Your task to perform on an android device: Open my contact list Image 0: 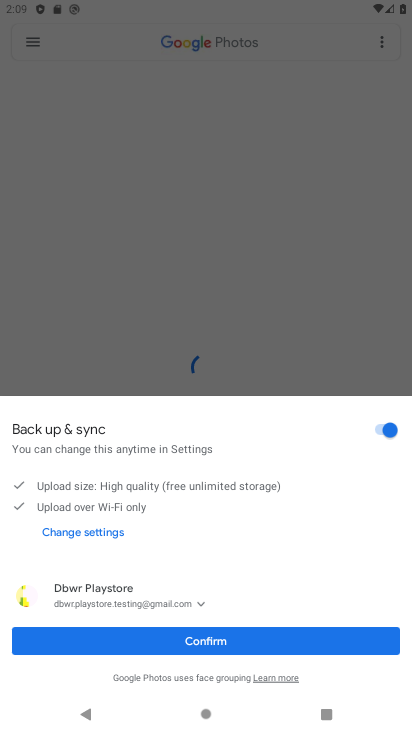
Step 0: press back button
Your task to perform on an android device: Open my contact list Image 1: 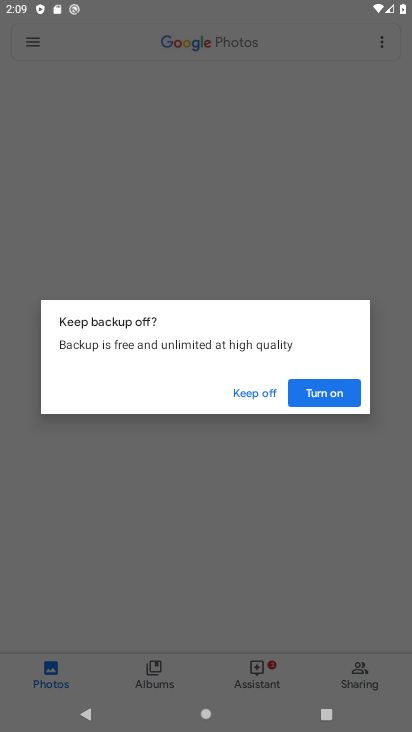
Step 1: press back button
Your task to perform on an android device: Open my contact list Image 2: 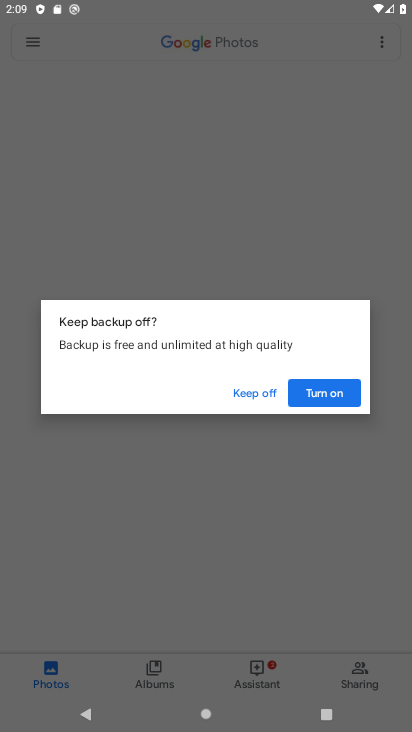
Step 2: press back button
Your task to perform on an android device: Open my contact list Image 3: 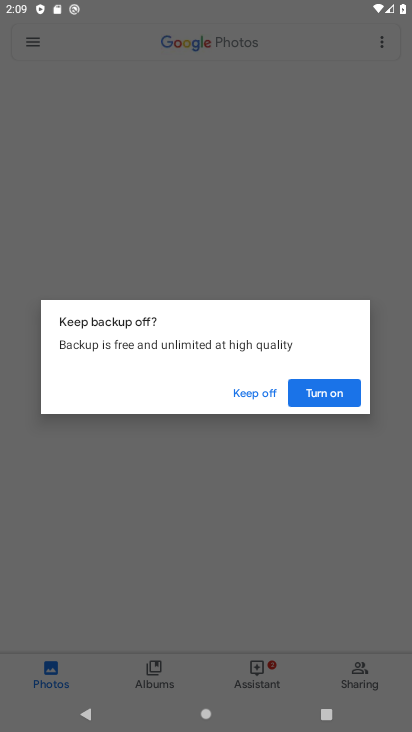
Step 3: press back button
Your task to perform on an android device: Open my contact list Image 4: 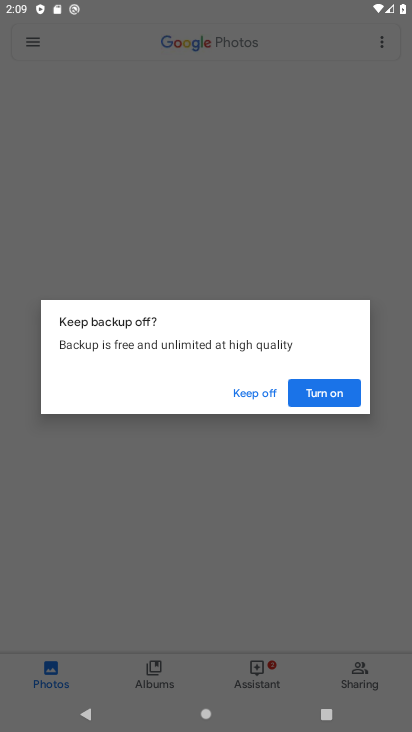
Step 4: click (244, 394)
Your task to perform on an android device: Open my contact list Image 5: 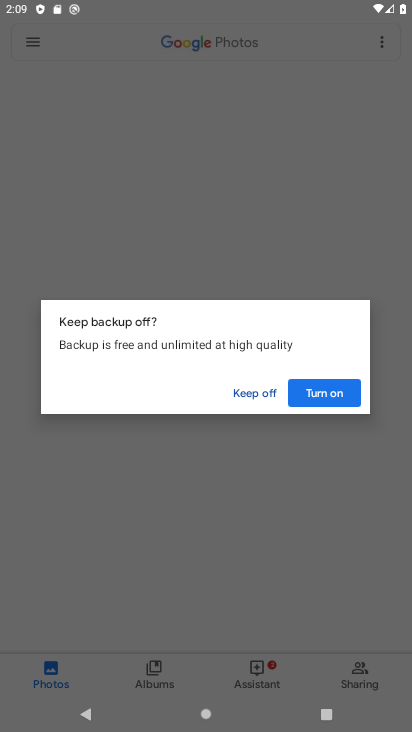
Step 5: click (244, 394)
Your task to perform on an android device: Open my contact list Image 6: 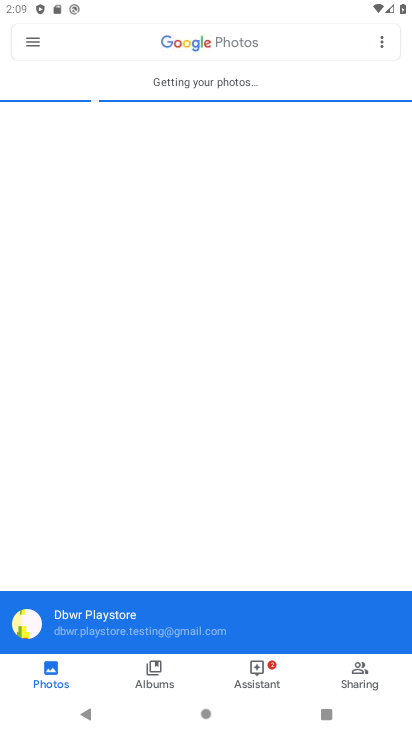
Step 6: click (247, 394)
Your task to perform on an android device: Open my contact list Image 7: 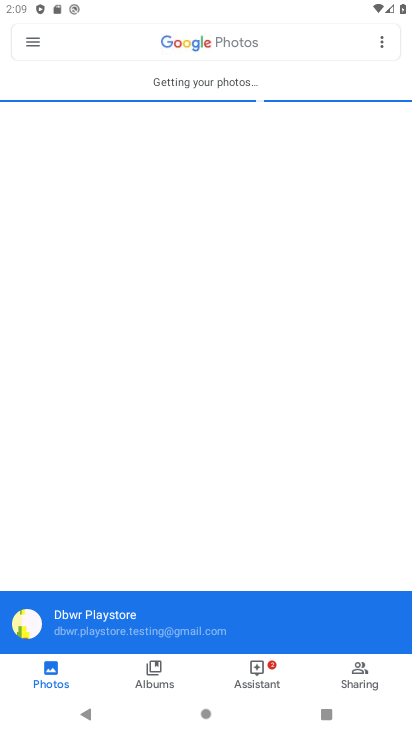
Step 7: click (248, 393)
Your task to perform on an android device: Open my contact list Image 8: 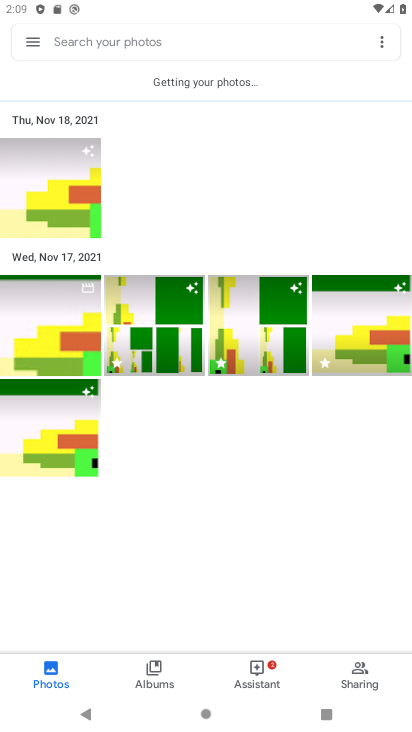
Step 8: press back button
Your task to perform on an android device: Open my contact list Image 9: 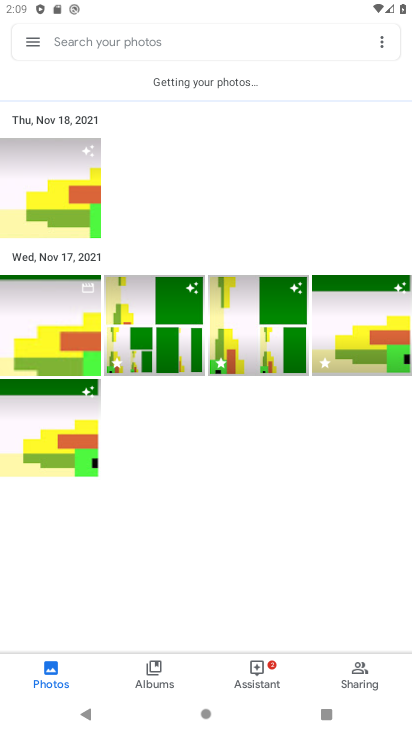
Step 9: press back button
Your task to perform on an android device: Open my contact list Image 10: 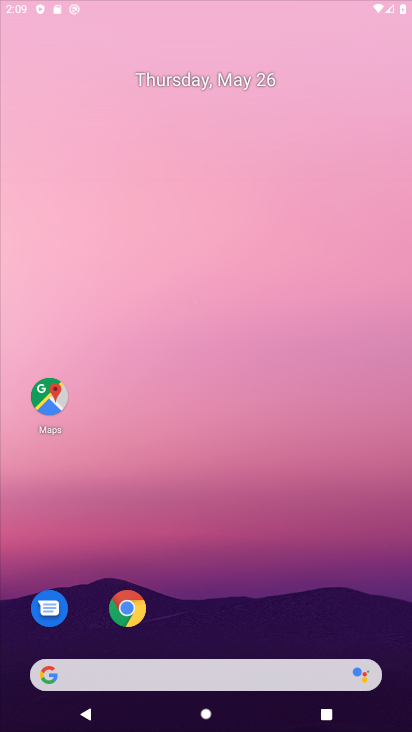
Step 10: press back button
Your task to perform on an android device: Open my contact list Image 11: 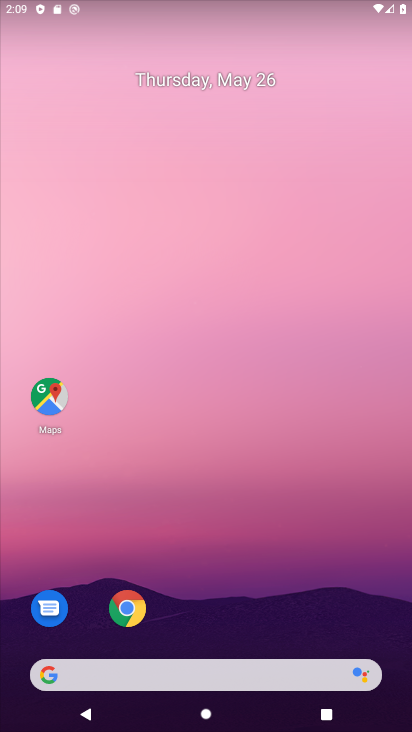
Step 11: press back button
Your task to perform on an android device: Open my contact list Image 12: 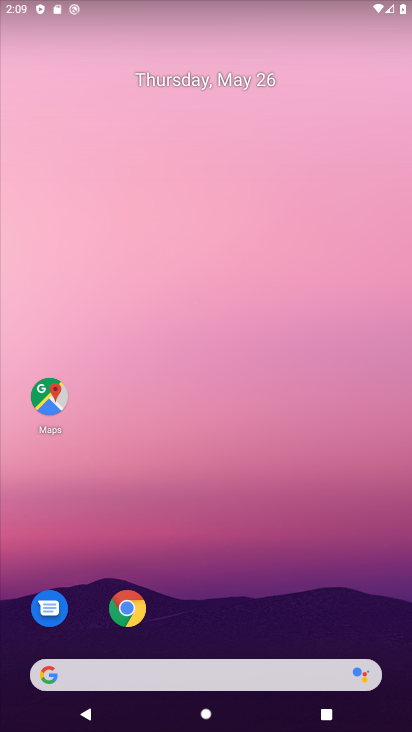
Step 12: drag from (252, 641) to (188, 0)
Your task to perform on an android device: Open my contact list Image 13: 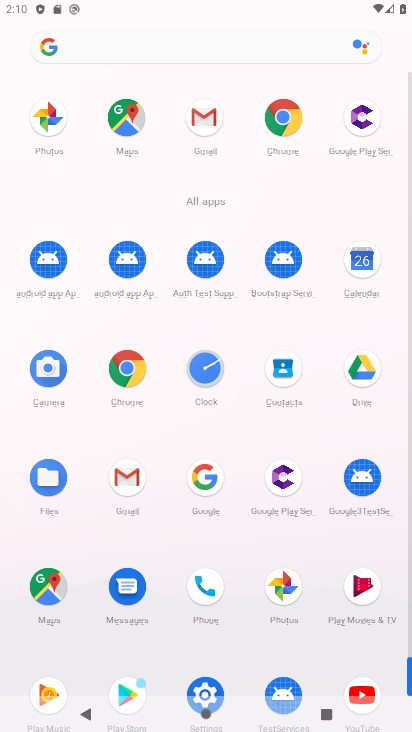
Step 13: click (284, 371)
Your task to perform on an android device: Open my contact list Image 14: 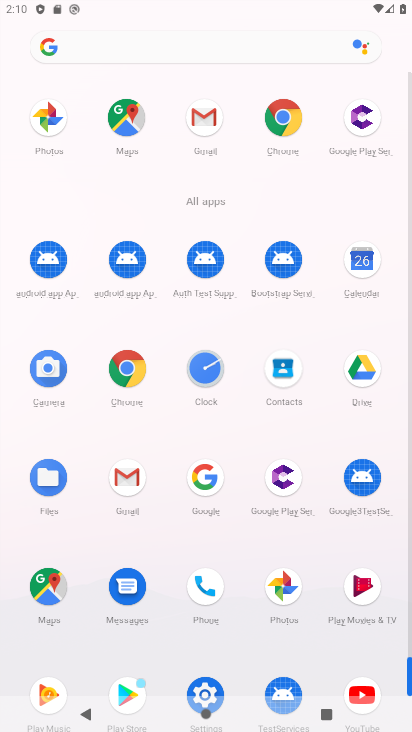
Step 14: click (284, 371)
Your task to perform on an android device: Open my contact list Image 15: 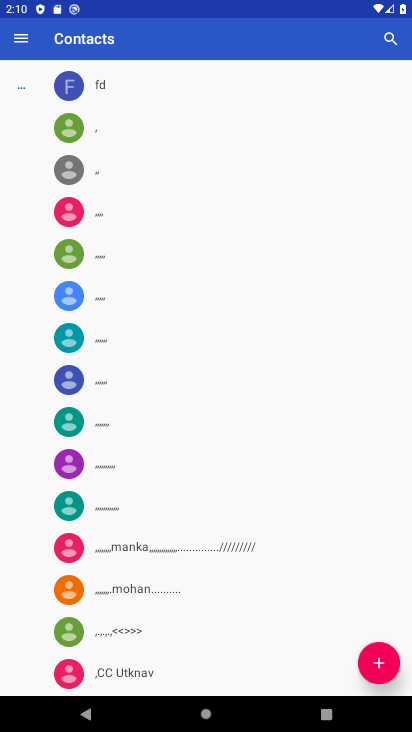
Step 15: task complete